Your task to perform on an android device: turn off wifi Image 0: 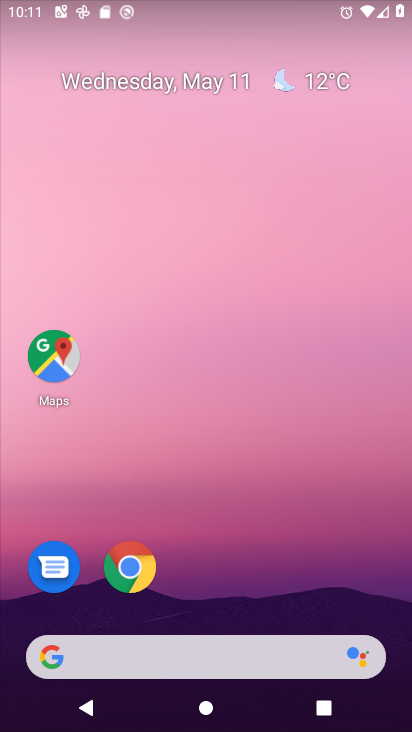
Step 0: drag from (264, 600) to (244, 181)
Your task to perform on an android device: turn off wifi Image 1: 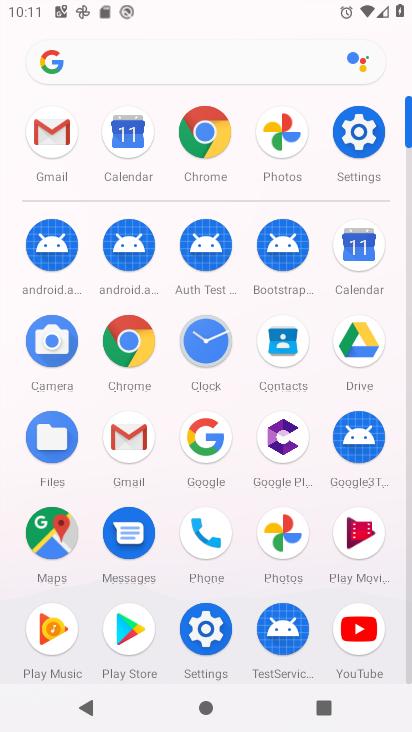
Step 1: click (362, 145)
Your task to perform on an android device: turn off wifi Image 2: 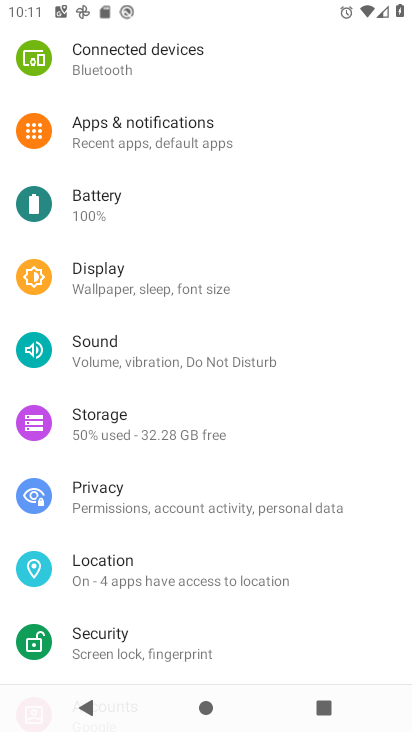
Step 2: drag from (217, 165) to (182, 527)
Your task to perform on an android device: turn off wifi Image 3: 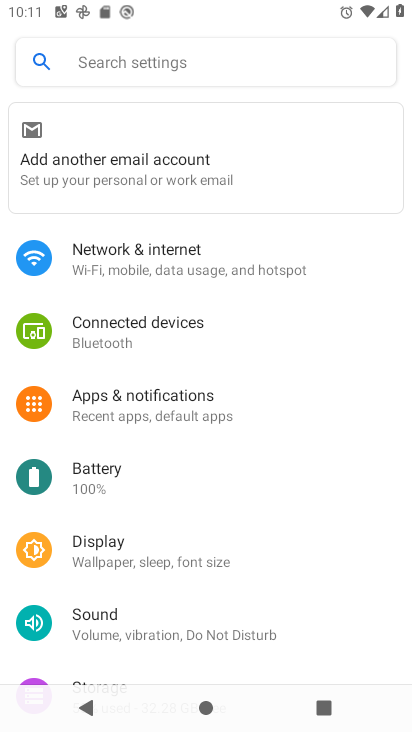
Step 3: click (194, 252)
Your task to perform on an android device: turn off wifi Image 4: 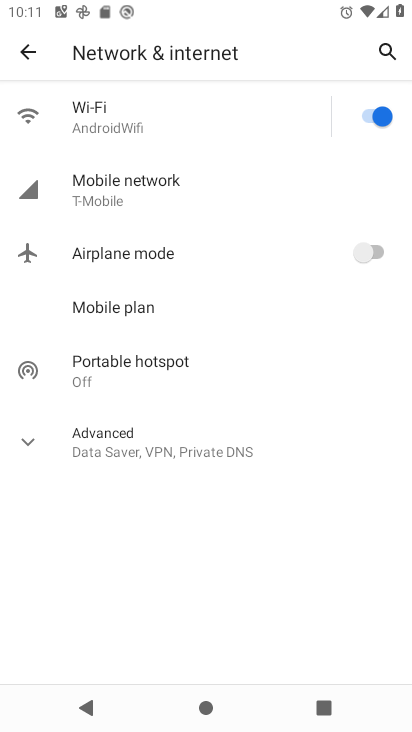
Step 4: click (381, 108)
Your task to perform on an android device: turn off wifi Image 5: 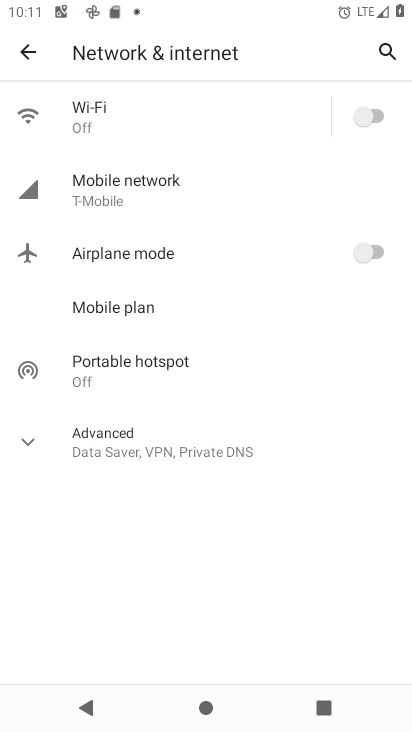
Step 5: task complete